Your task to perform on an android device: Open calendar and show me the second week of next month Image 0: 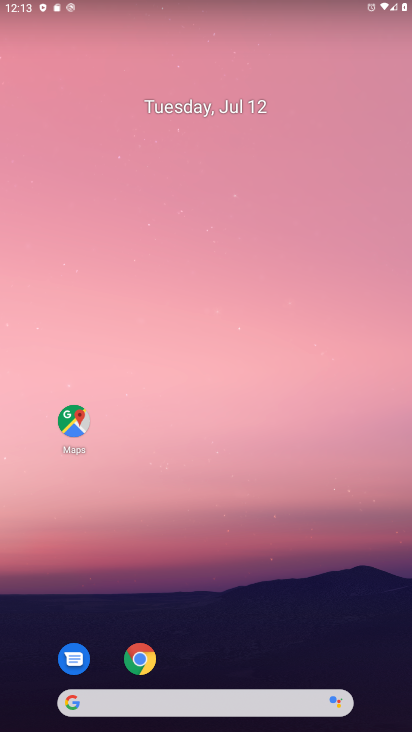
Step 0: click (275, 200)
Your task to perform on an android device: Open calendar and show me the second week of next month Image 1: 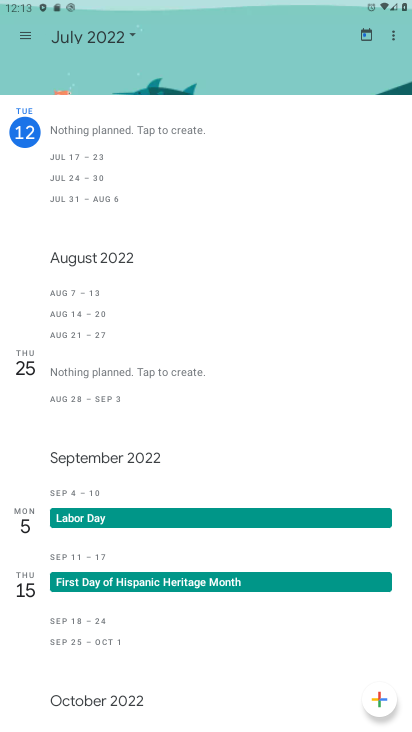
Step 1: drag from (180, 584) to (258, 128)
Your task to perform on an android device: Open calendar and show me the second week of next month Image 2: 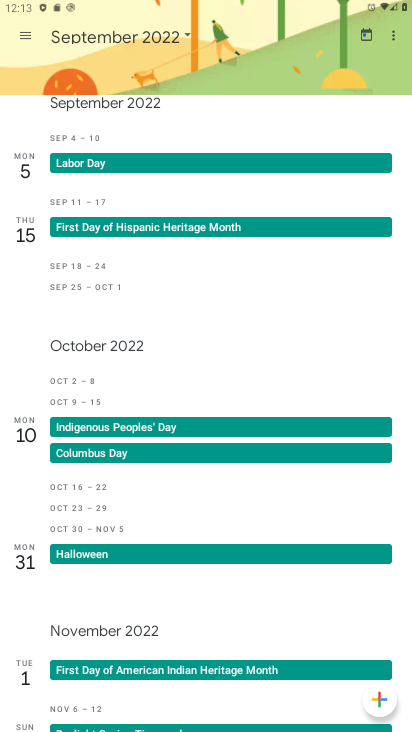
Step 2: press home button
Your task to perform on an android device: Open calendar and show me the second week of next month Image 3: 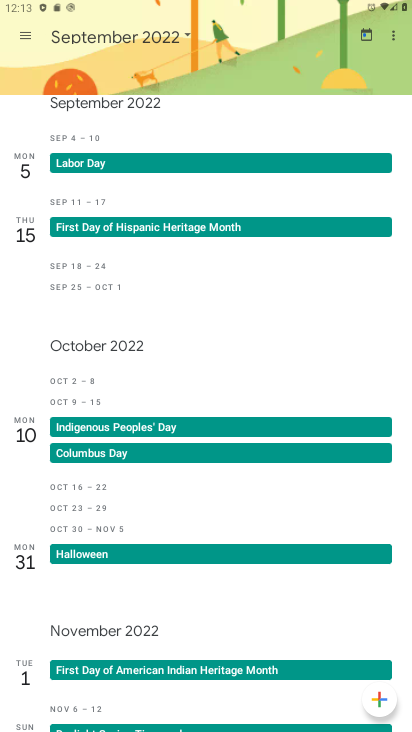
Step 3: drag from (242, 213) to (253, 52)
Your task to perform on an android device: Open calendar and show me the second week of next month Image 4: 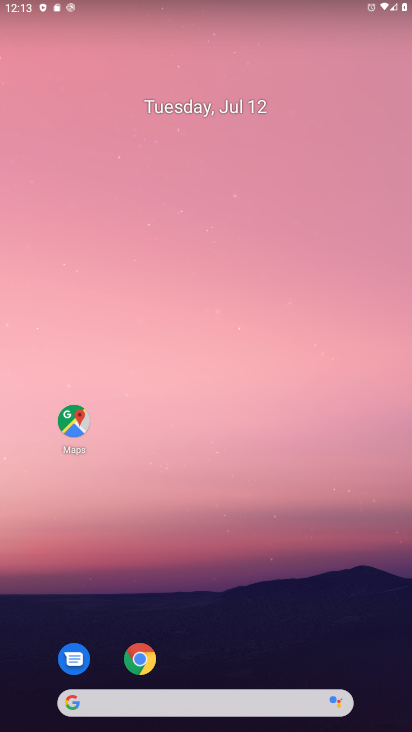
Step 4: drag from (184, 673) to (198, 103)
Your task to perform on an android device: Open calendar and show me the second week of next month Image 5: 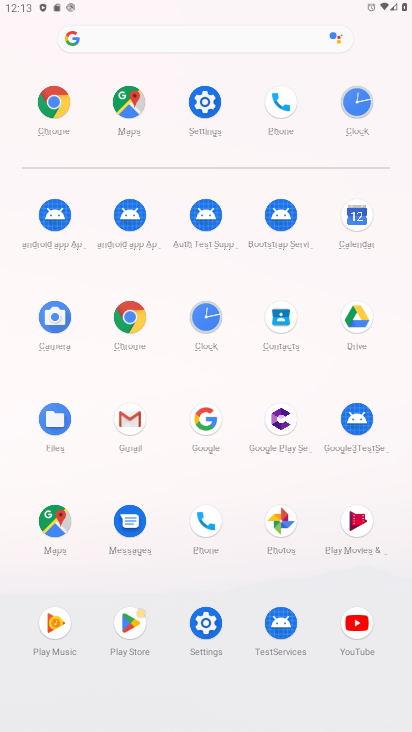
Step 5: click (361, 217)
Your task to perform on an android device: Open calendar and show me the second week of next month Image 6: 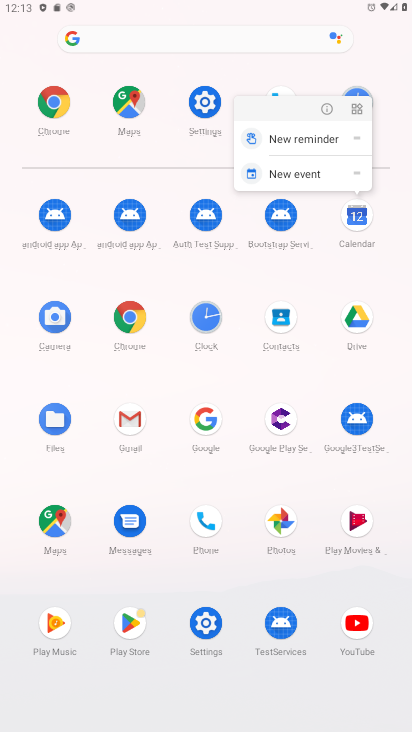
Step 6: click (322, 106)
Your task to perform on an android device: Open calendar and show me the second week of next month Image 7: 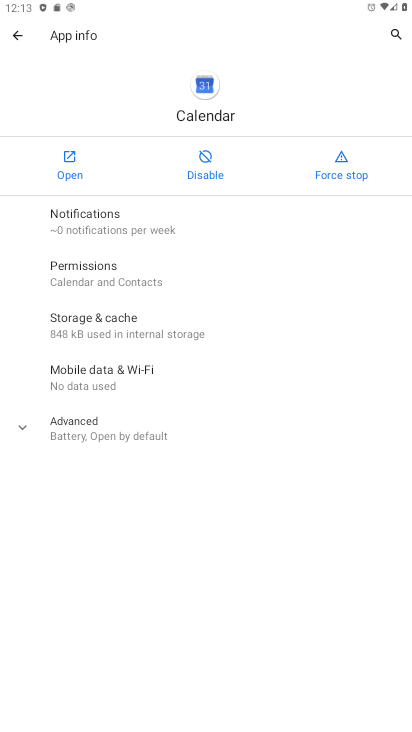
Step 7: click (67, 161)
Your task to perform on an android device: Open calendar and show me the second week of next month Image 8: 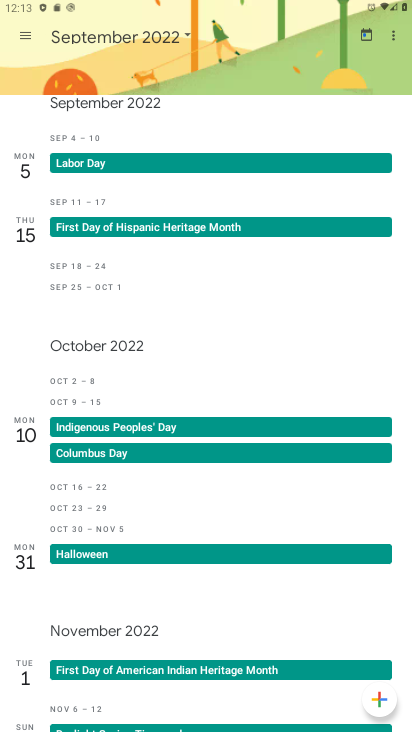
Step 8: drag from (232, 577) to (253, 233)
Your task to perform on an android device: Open calendar and show me the second week of next month Image 9: 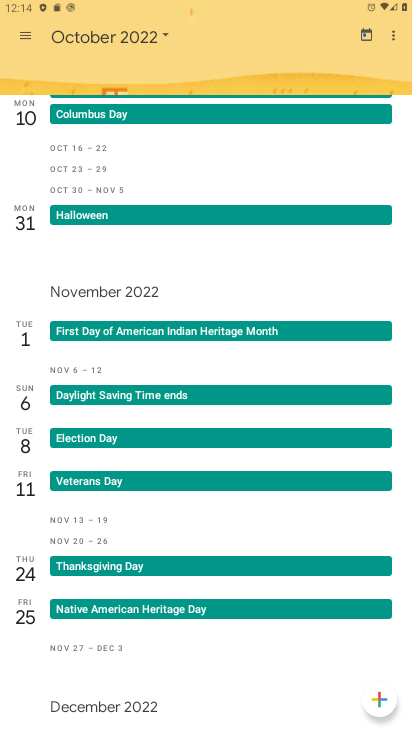
Step 9: click (108, 29)
Your task to perform on an android device: Open calendar and show me the second week of next month Image 10: 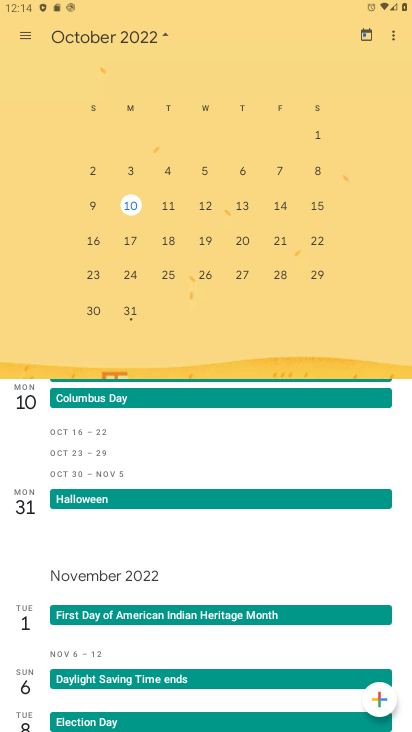
Step 10: drag from (87, 228) to (400, 222)
Your task to perform on an android device: Open calendar and show me the second week of next month Image 11: 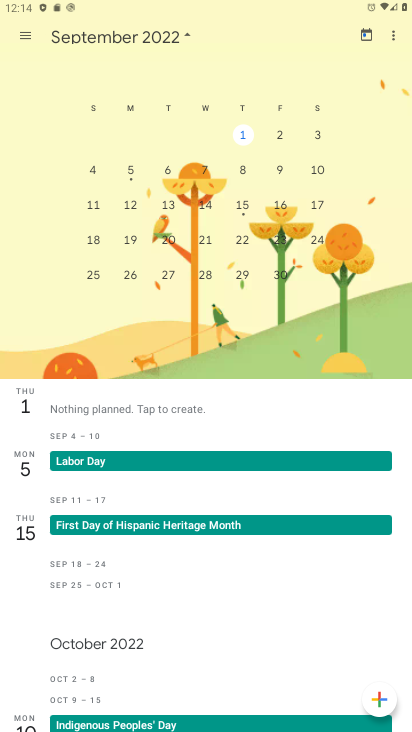
Step 11: drag from (88, 227) to (410, 139)
Your task to perform on an android device: Open calendar and show me the second week of next month Image 12: 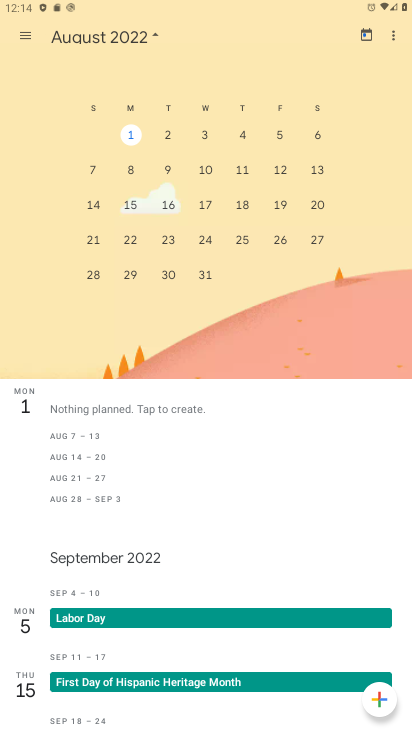
Step 12: drag from (98, 230) to (411, 174)
Your task to perform on an android device: Open calendar and show me the second week of next month Image 13: 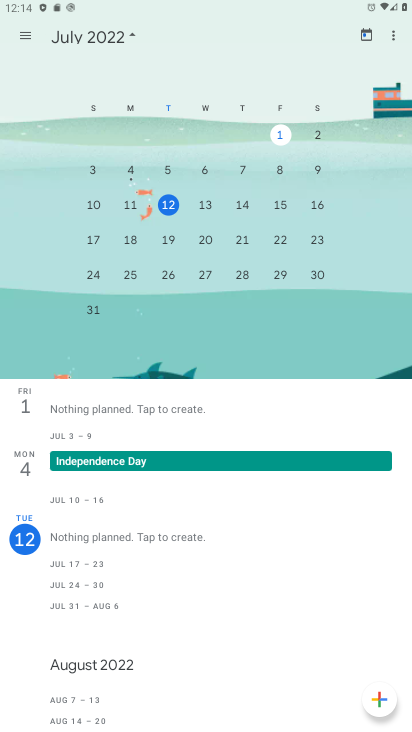
Step 13: drag from (304, 239) to (10, 255)
Your task to perform on an android device: Open calendar and show me the second week of next month Image 14: 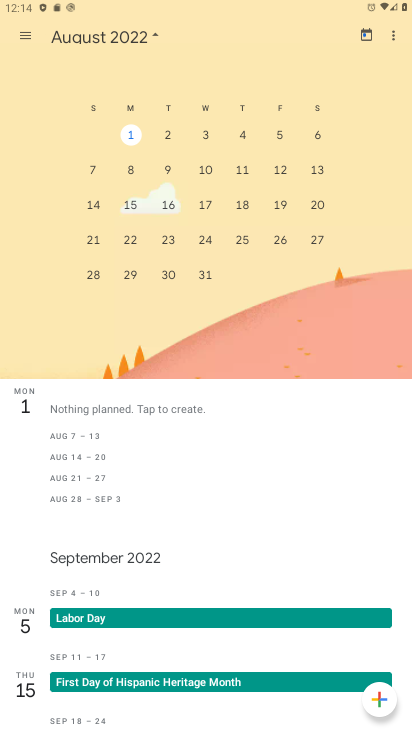
Step 14: click (235, 169)
Your task to perform on an android device: Open calendar and show me the second week of next month Image 15: 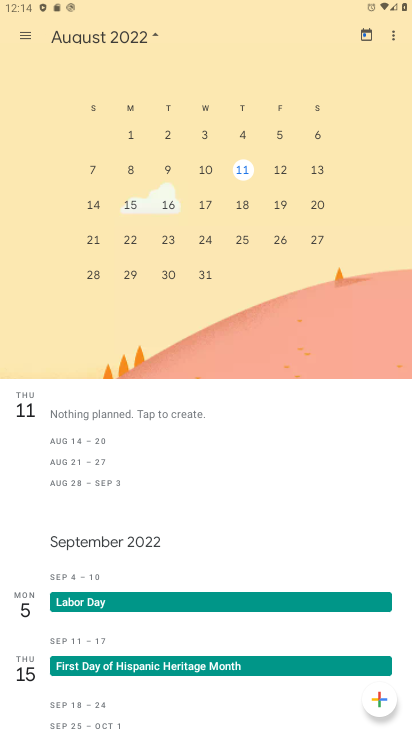
Step 15: task complete